Your task to perform on an android device: allow cookies in the chrome app Image 0: 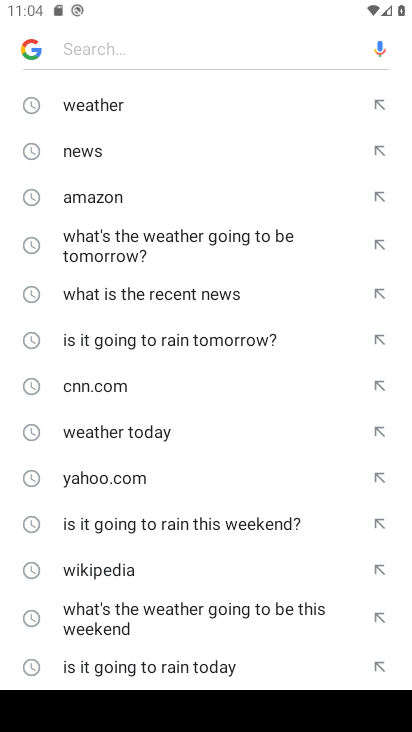
Step 0: press back button
Your task to perform on an android device: allow cookies in the chrome app Image 1: 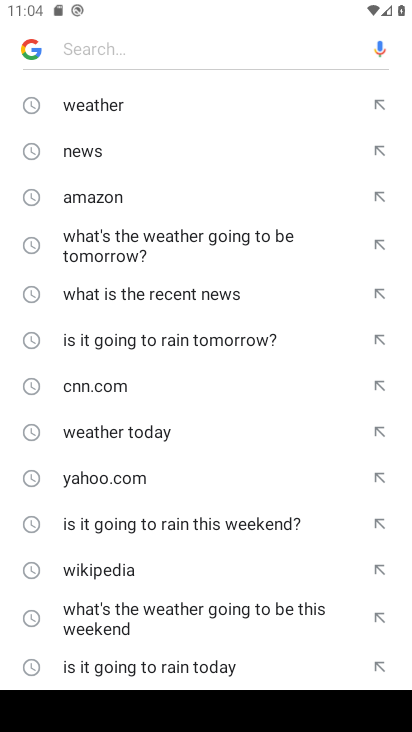
Step 1: press back button
Your task to perform on an android device: allow cookies in the chrome app Image 2: 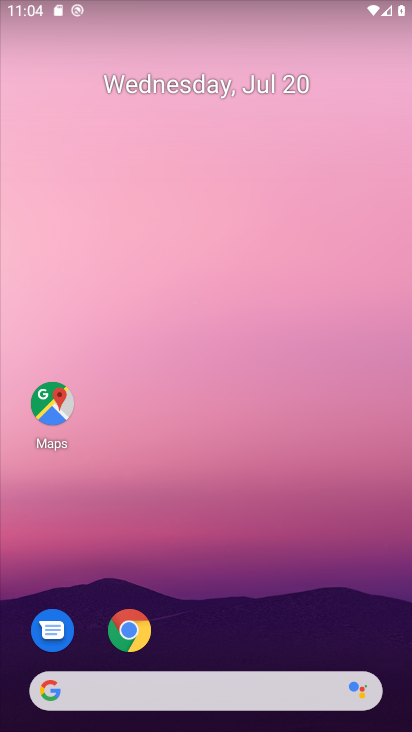
Step 2: drag from (213, 646) to (148, 329)
Your task to perform on an android device: allow cookies in the chrome app Image 3: 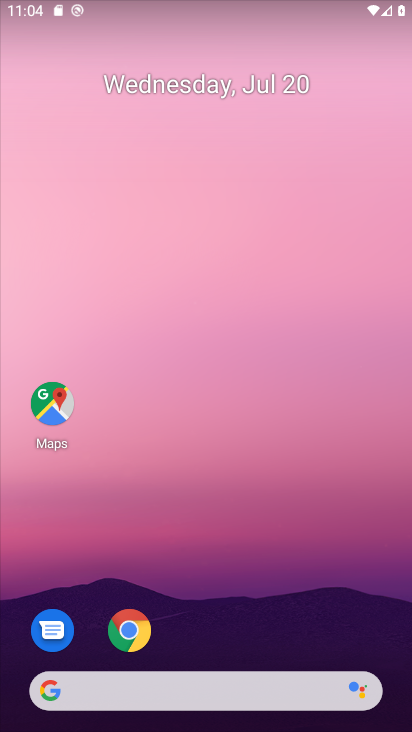
Step 3: drag from (232, 519) to (202, 270)
Your task to perform on an android device: allow cookies in the chrome app Image 4: 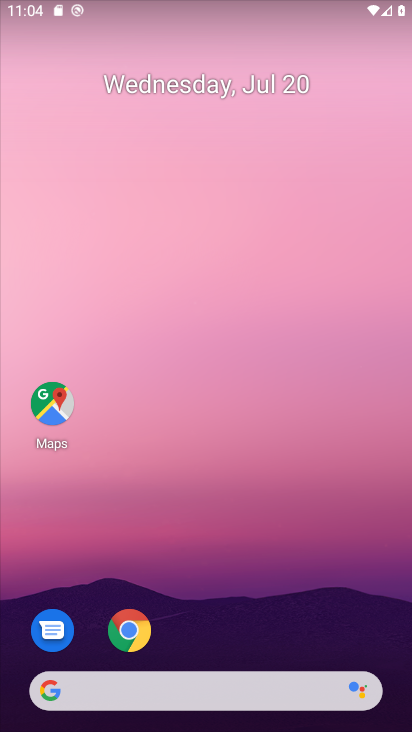
Step 4: drag from (248, 583) to (178, 198)
Your task to perform on an android device: allow cookies in the chrome app Image 5: 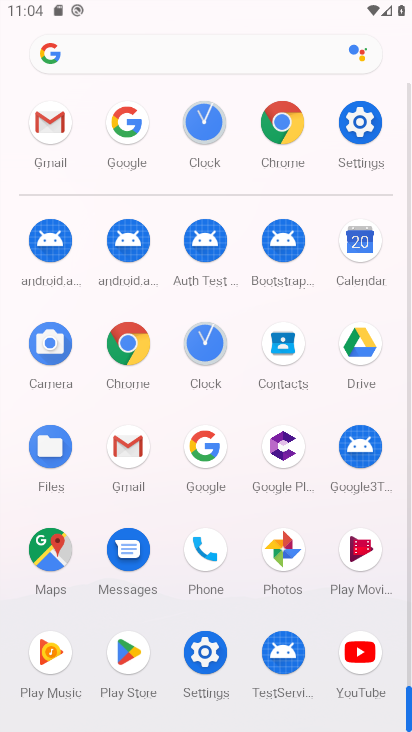
Step 5: click (287, 145)
Your task to perform on an android device: allow cookies in the chrome app Image 6: 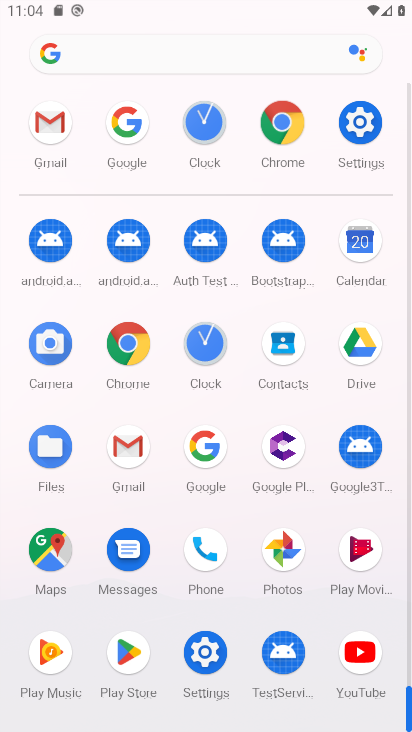
Step 6: click (294, 138)
Your task to perform on an android device: allow cookies in the chrome app Image 7: 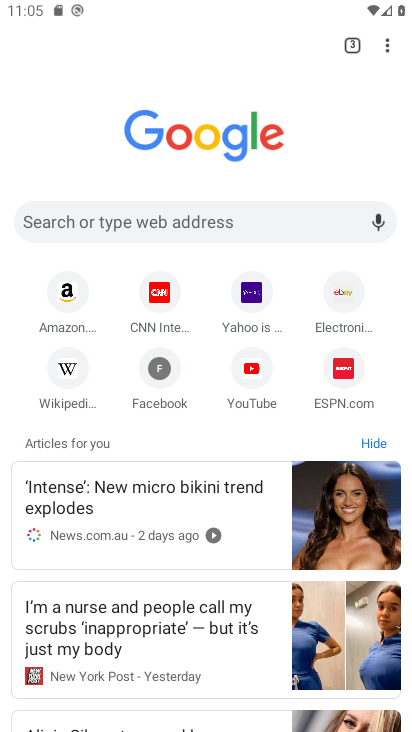
Step 7: drag from (393, 46) to (229, 389)
Your task to perform on an android device: allow cookies in the chrome app Image 8: 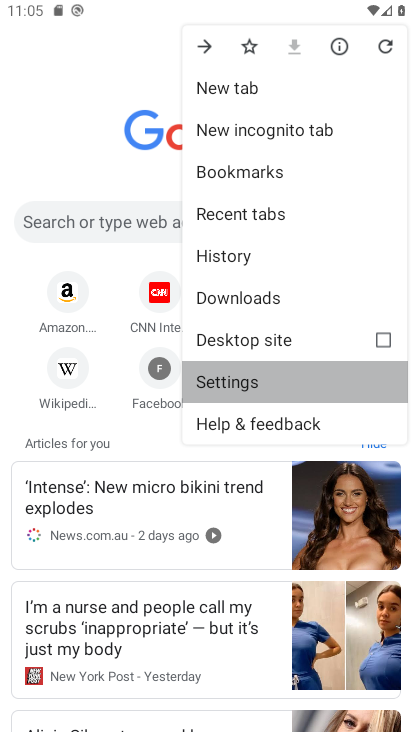
Step 8: click (229, 389)
Your task to perform on an android device: allow cookies in the chrome app Image 9: 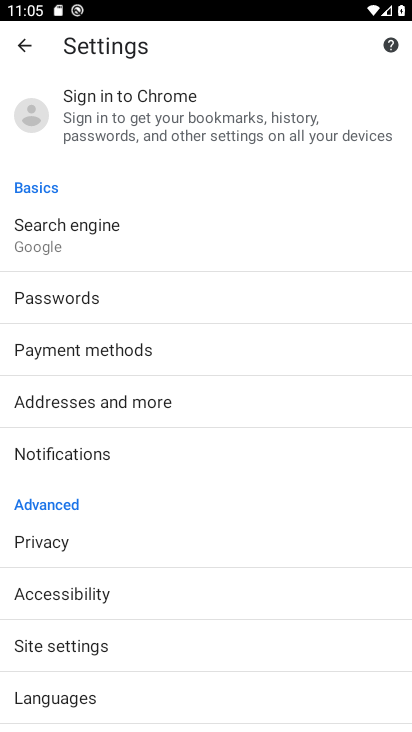
Step 9: drag from (78, 494) to (89, 242)
Your task to perform on an android device: allow cookies in the chrome app Image 10: 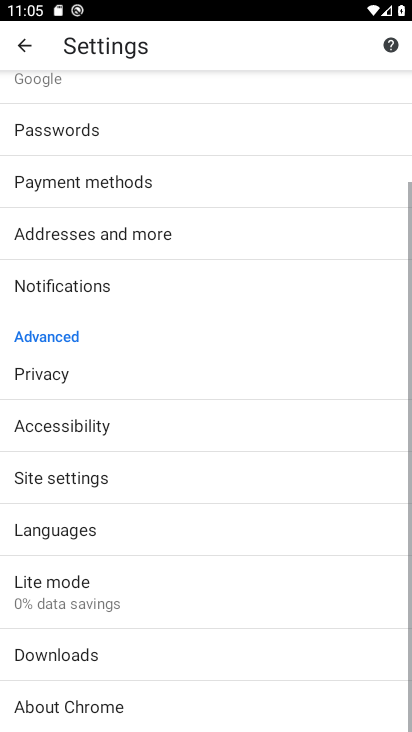
Step 10: drag from (120, 477) to (137, 344)
Your task to perform on an android device: allow cookies in the chrome app Image 11: 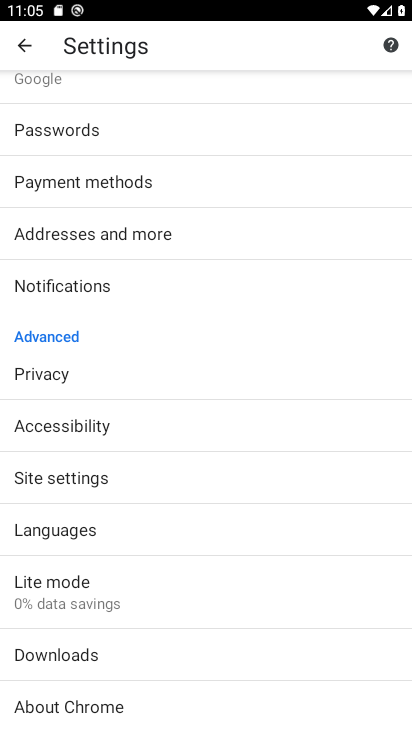
Step 11: click (59, 465)
Your task to perform on an android device: allow cookies in the chrome app Image 12: 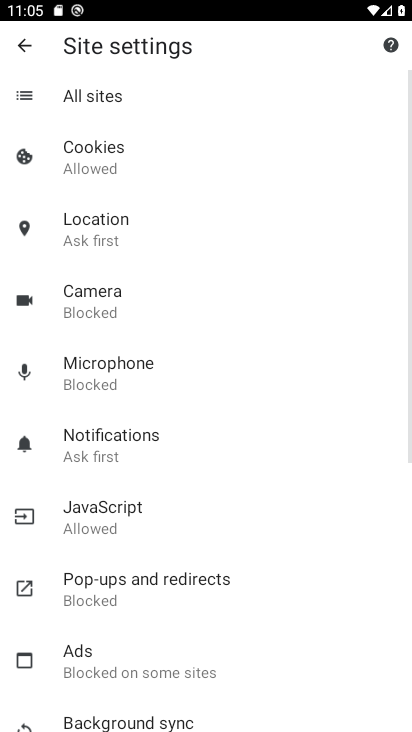
Step 12: click (82, 162)
Your task to perform on an android device: allow cookies in the chrome app Image 13: 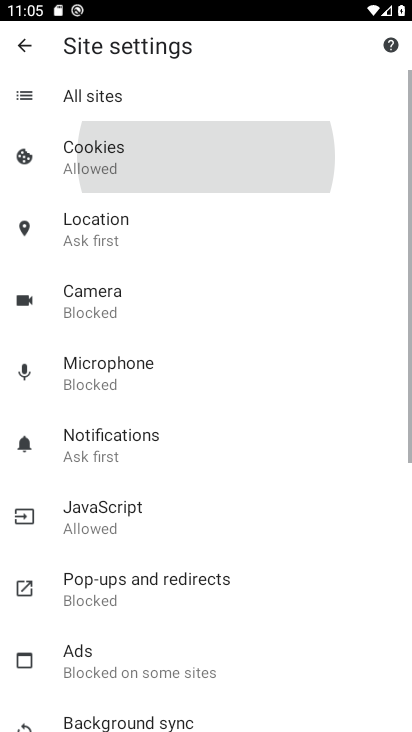
Step 13: click (83, 161)
Your task to perform on an android device: allow cookies in the chrome app Image 14: 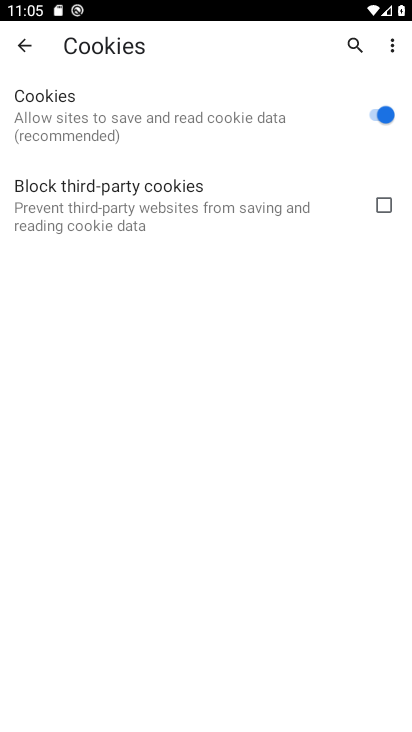
Step 14: task complete